Your task to perform on an android device: delete browsing data in the chrome app Image 0: 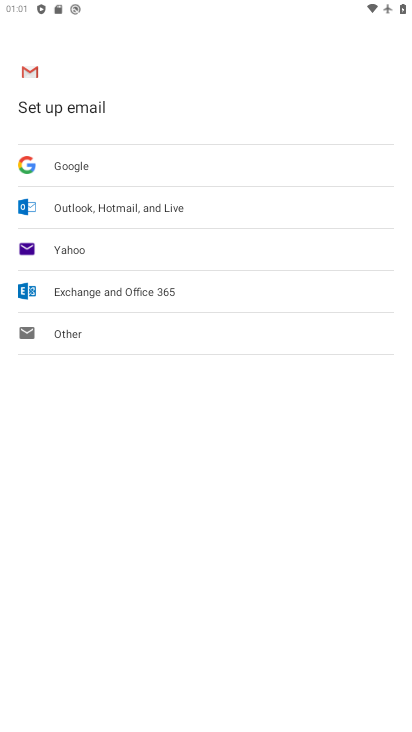
Step 0: press home button
Your task to perform on an android device: delete browsing data in the chrome app Image 1: 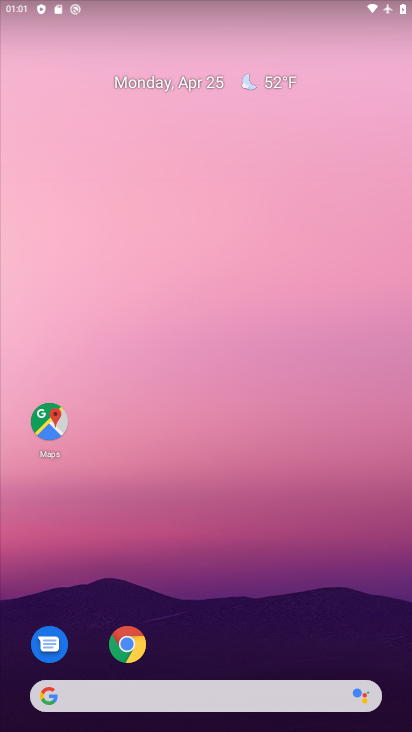
Step 1: click (138, 640)
Your task to perform on an android device: delete browsing data in the chrome app Image 2: 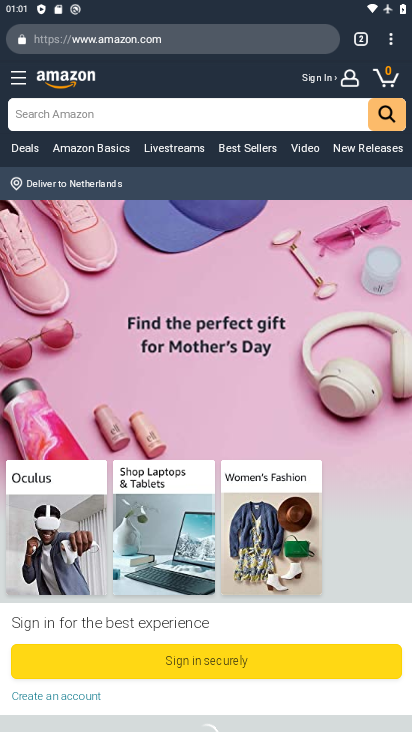
Step 2: click (393, 39)
Your task to perform on an android device: delete browsing data in the chrome app Image 3: 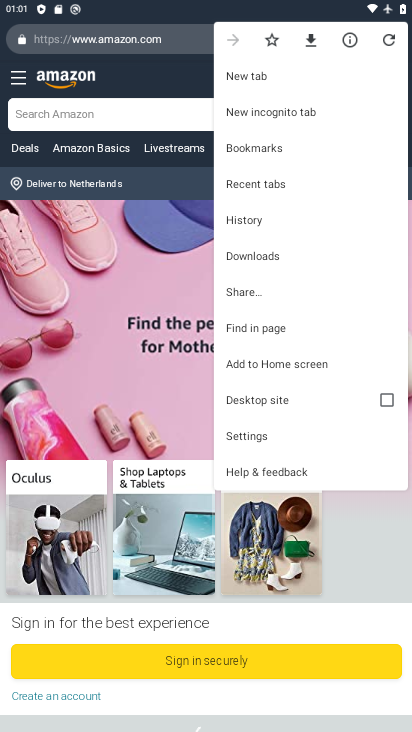
Step 3: click (272, 223)
Your task to perform on an android device: delete browsing data in the chrome app Image 4: 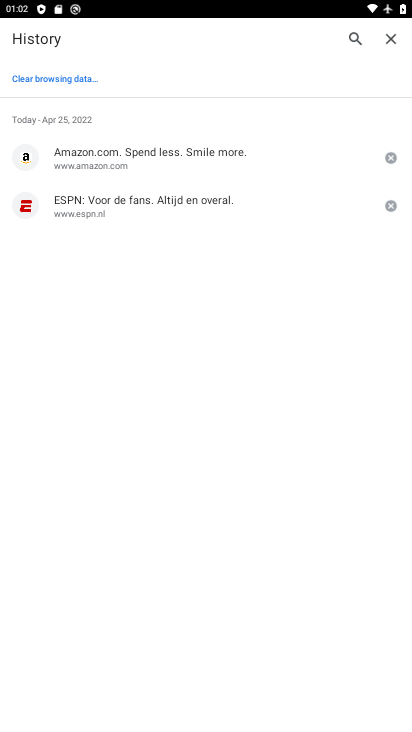
Step 4: click (53, 80)
Your task to perform on an android device: delete browsing data in the chrome app Image 5: 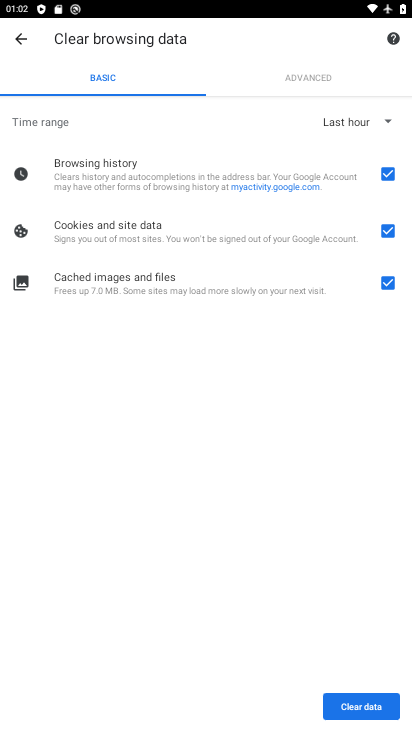
Step 5: click (375, 707)
Your task to perform on an android device: delete browsing data in the chrome app Image 6: 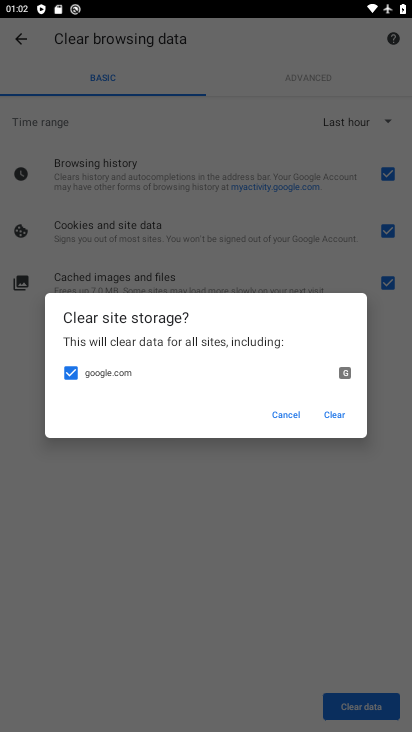
Step 6: click (329, 416)
Your task to perform on an android device: delete browsing data in the chrome app Image 7: 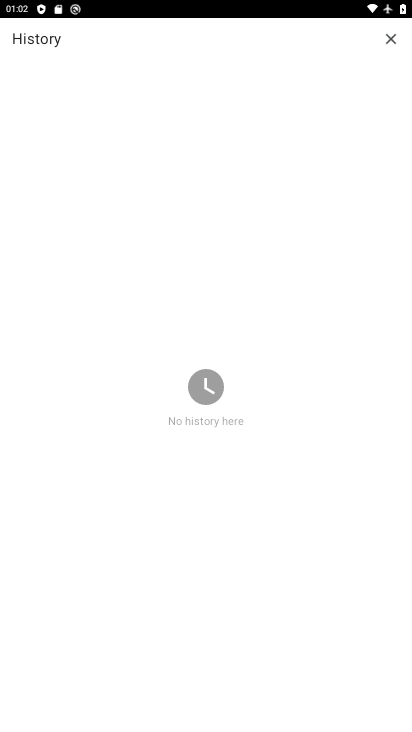
Step 7: task complete